Your task to perform on an android device: What's the weather going to be this weekend? Image 0: 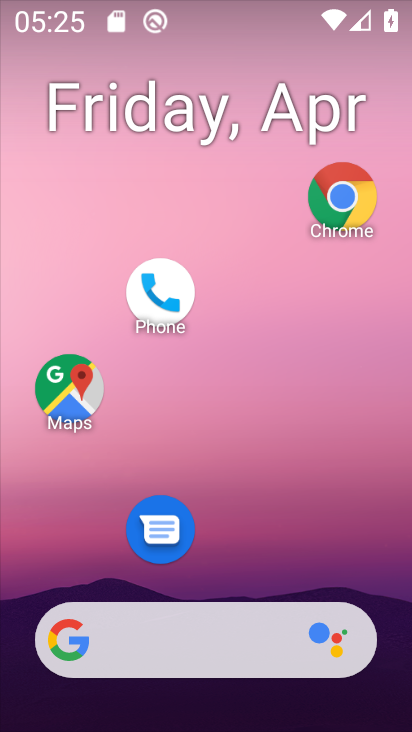
Step 0: drag from (7, 245) to (409, 259)
Your task to perform on an android device: What's the weather going to be this weekend? Image 1: 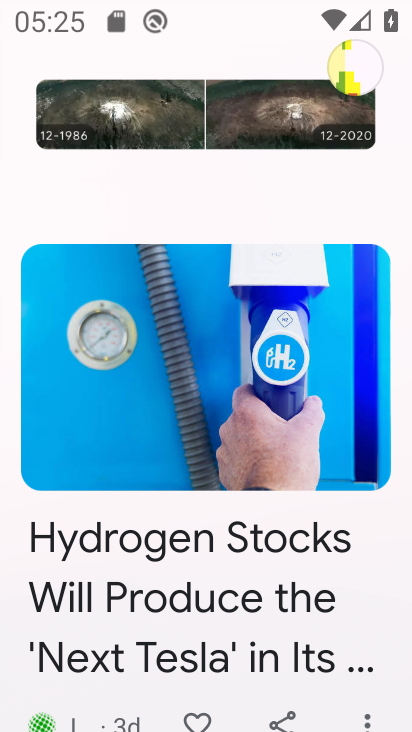
Step 1: task complete